Your task to perform on an android device: Is it going to rain this weekend? Image 0: 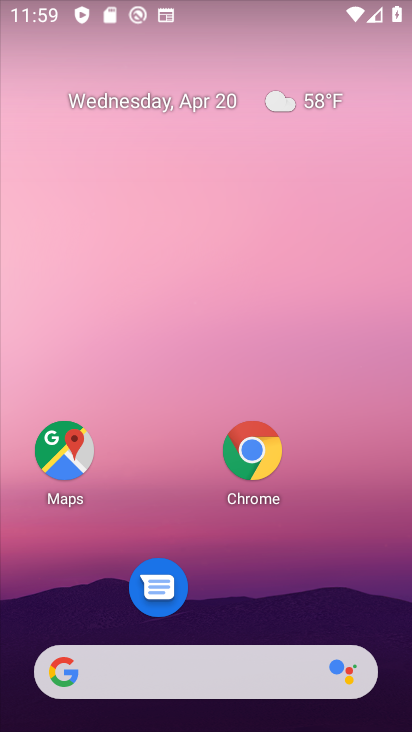
Step 0: click (187, 687)
Your task to perform on an android device: Is it going to rain this weekend? Image 1: 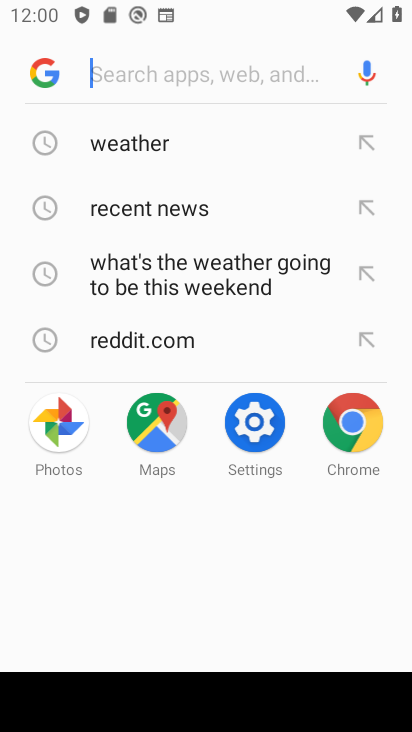
Step 1: click (182, 161)
Your task to perform on an android device: Is it going to rain this weekend? Image 2: 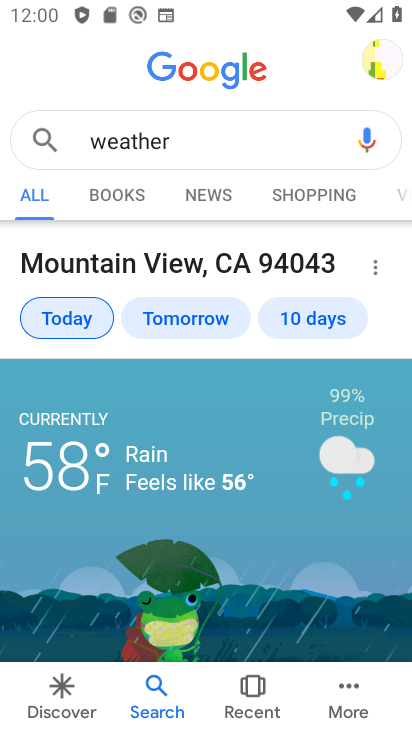
Step 2: click (312, 326)
Your task to perform on an android device: Is it going to rain this weekend? Image 3: 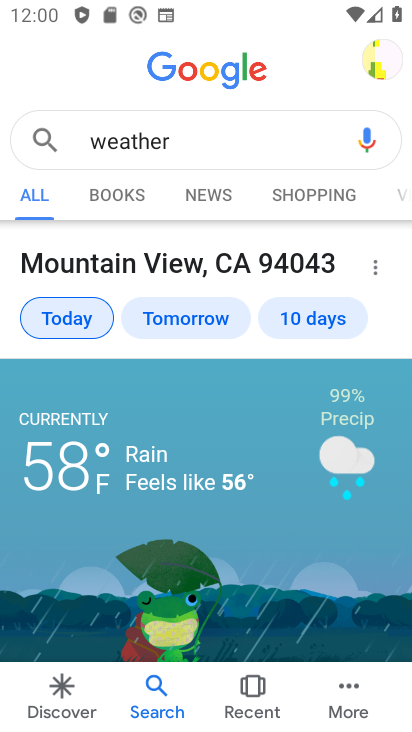
Step 3: click (312, 326)
Your task to perform on an android device: Is it going to rain this weekend? Image 4: 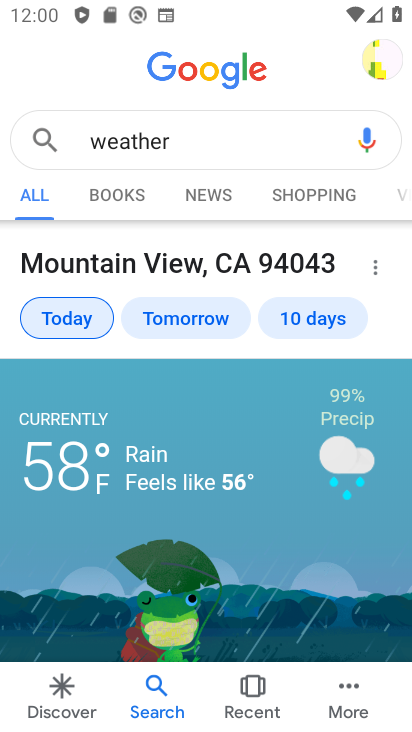
Step 4: click (312, 326)
Your task to perform on an android device: Is it going to rain this weekend? Image 5: 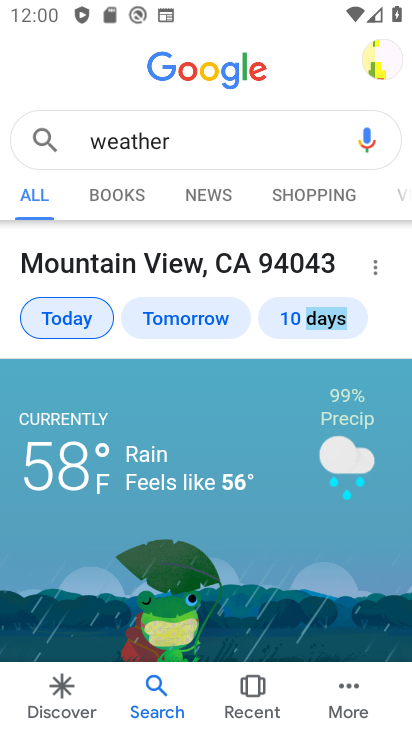
Step 5: click (312, 326)
Your task to perform on an android device: Is it going to rain this weekend? Image 6: 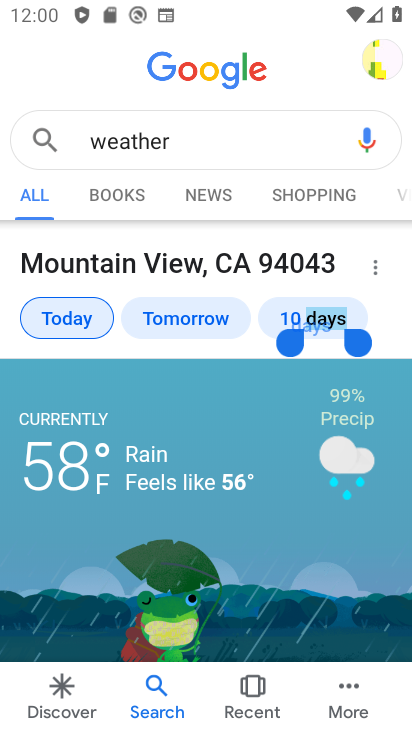
Step 6: click (284, 323)
Your task to perform on an android device: Is it going to rain this weekend? Image 7: 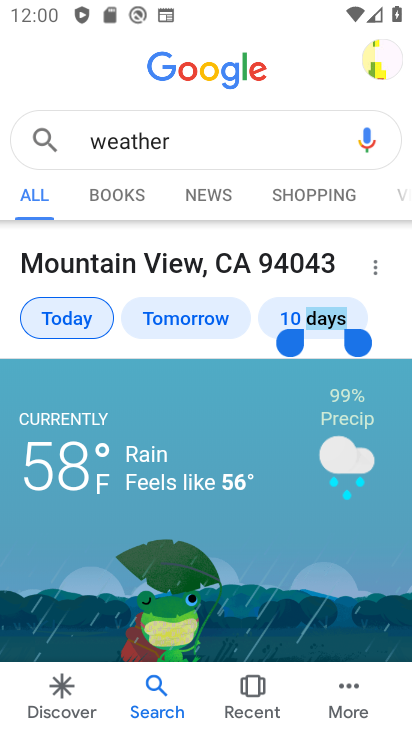
Step 7: press home button
Your task to perform on an android device: Is it going to rain this weekend? Image 8: 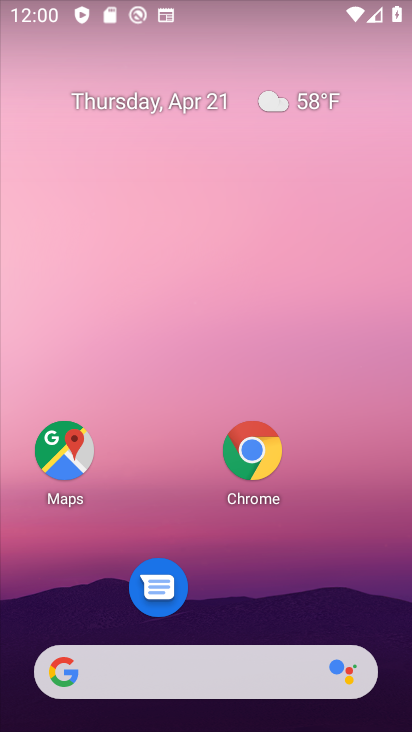
Step 8: click (301, 108)
Your task to perform on an android device: Is it going to rain this weekend? Image 9: 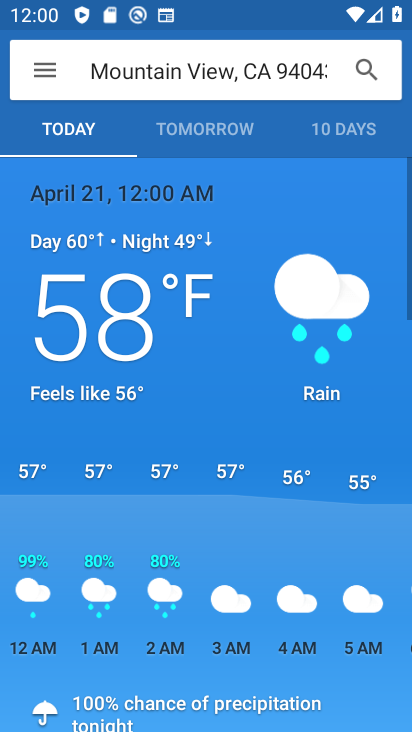
Step 9: click (323, 123)
Your task to perform on an android device: Is it going to rain this weekend? Image 10: 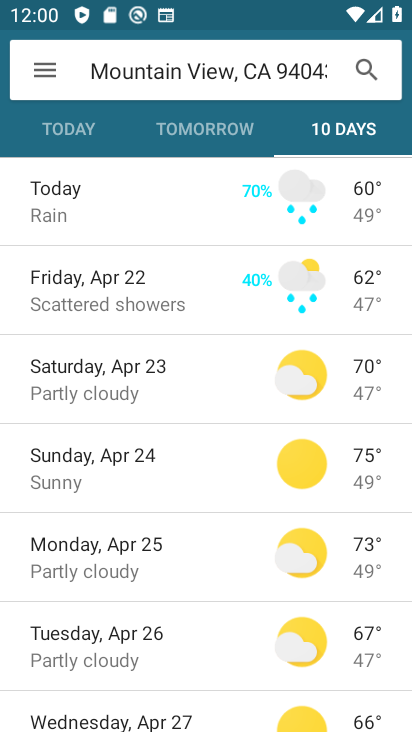
Step 10: task complete